Your task to perform on an android device: Search for "usb-b" on ebay.com, select the first entry, and add it to the cart. Image 0: 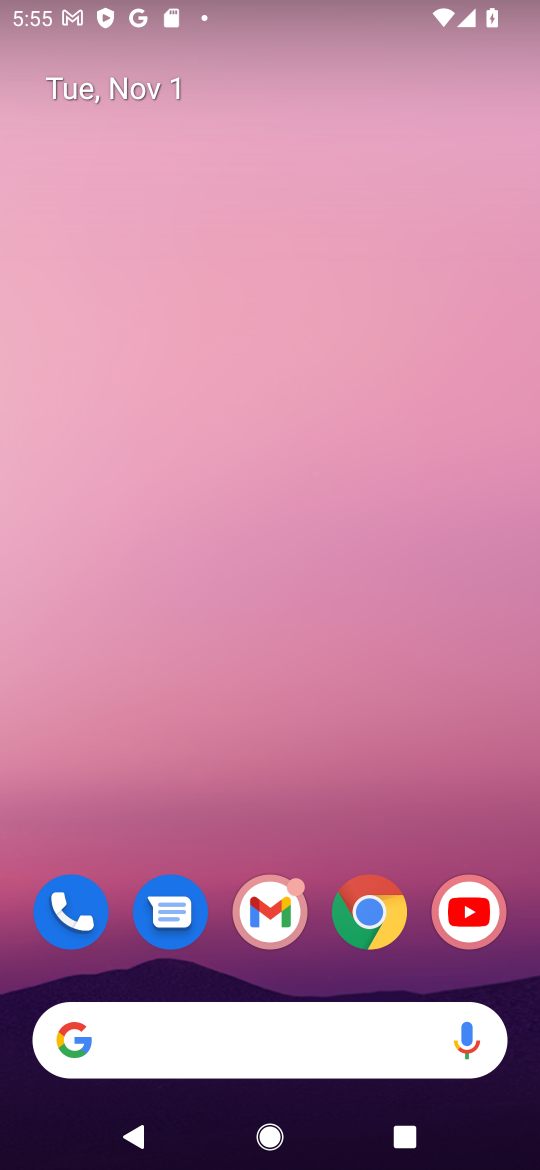
Step 0: click (372, 926)
Your task to perform on an android device: Search for "usb-b" on ebay.com, select the first entry, and add it to the cart. Image 1: 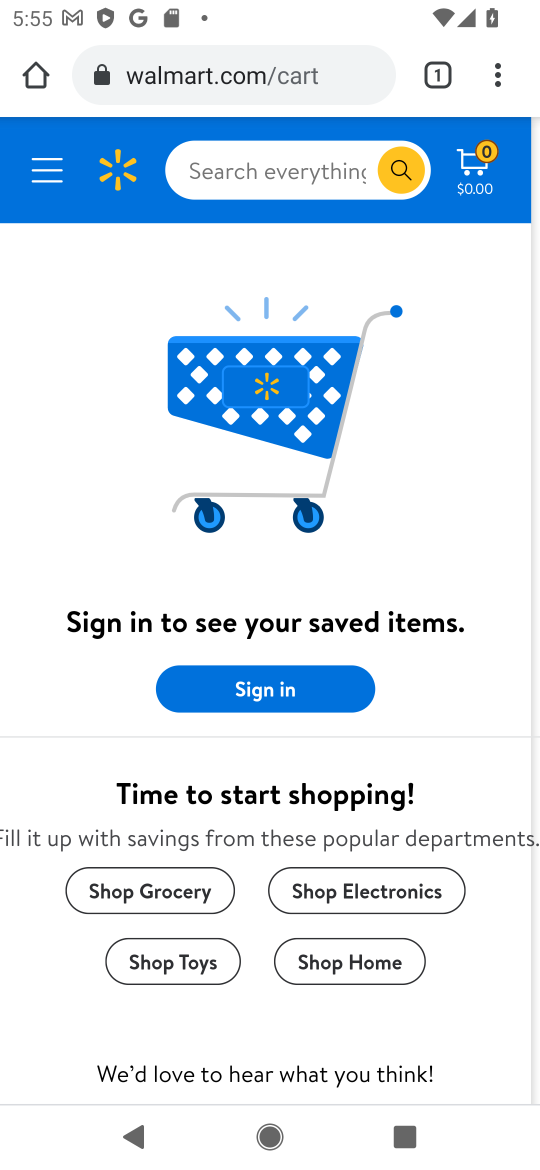
Step 1: click (263, 79)
Your task to perform on an android device: Search for "usb-b" on ebay.com, select the first entry, and add it to the cart. Image 2: 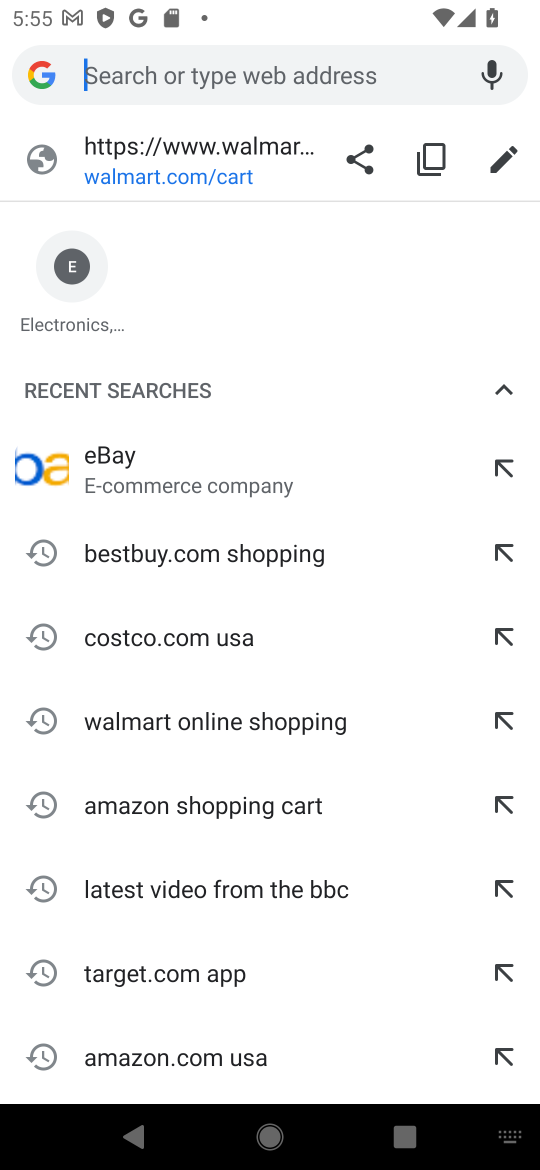
Step 2: click (277, 466)
Your task to perform on an android device: Search for "usb-b" on ebay.com, select the first entry, and add it to the cart. Image 3: 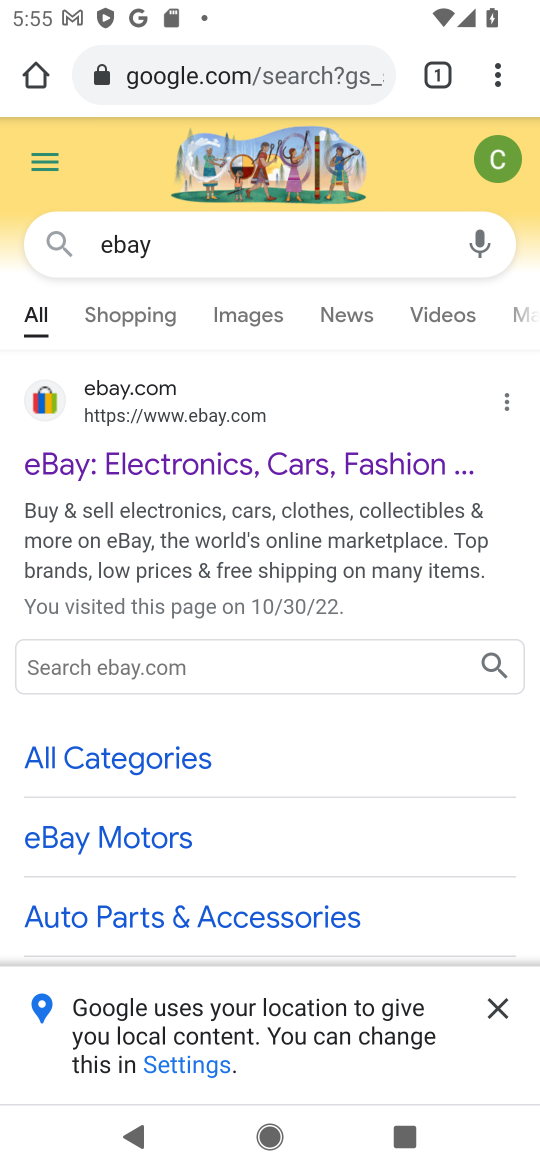
Step 3: click (324, 468)
Your task to perform on an android device: Search for "usb-b" on ebay.com, select the first entry, and add it to the cart. Image 4: 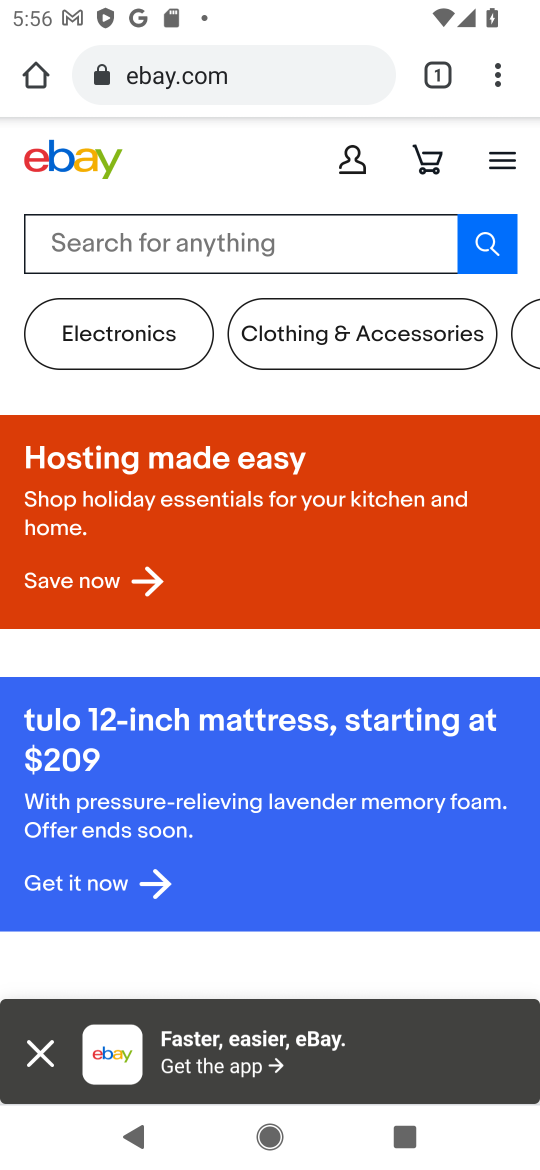
Step 4: click (213, 244)
Your task to perform on an android device: Search for "usb-b" on ebay.com, select the first entry, and add it to the cart. Image 5: 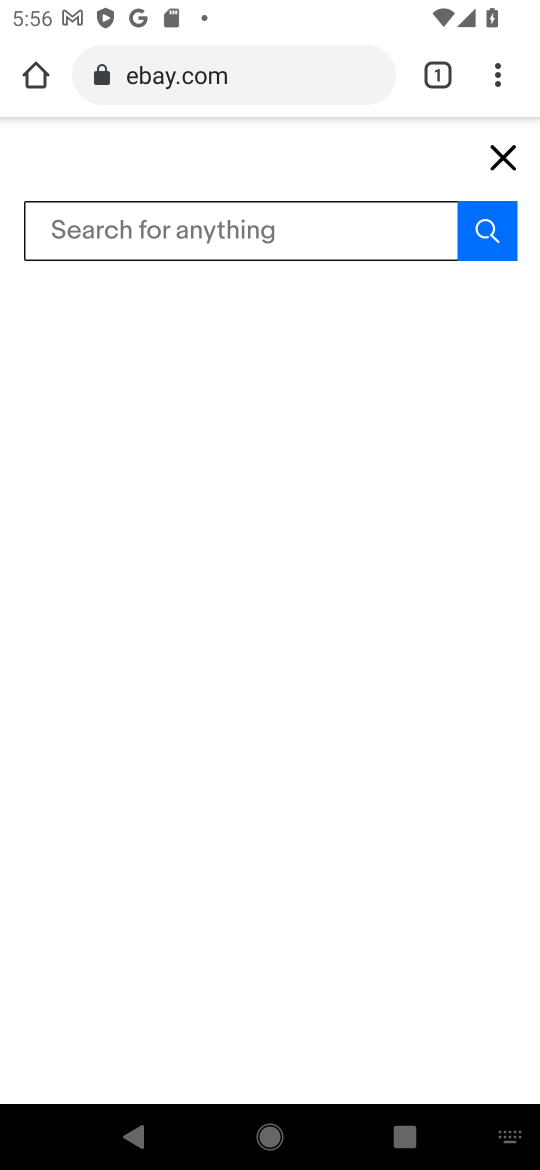
Step 5: type "usb-b"
Your task to perform on an android device: Search for "usb-b" on ebay.com, select the first entry, and add it to the cart. Image 6: 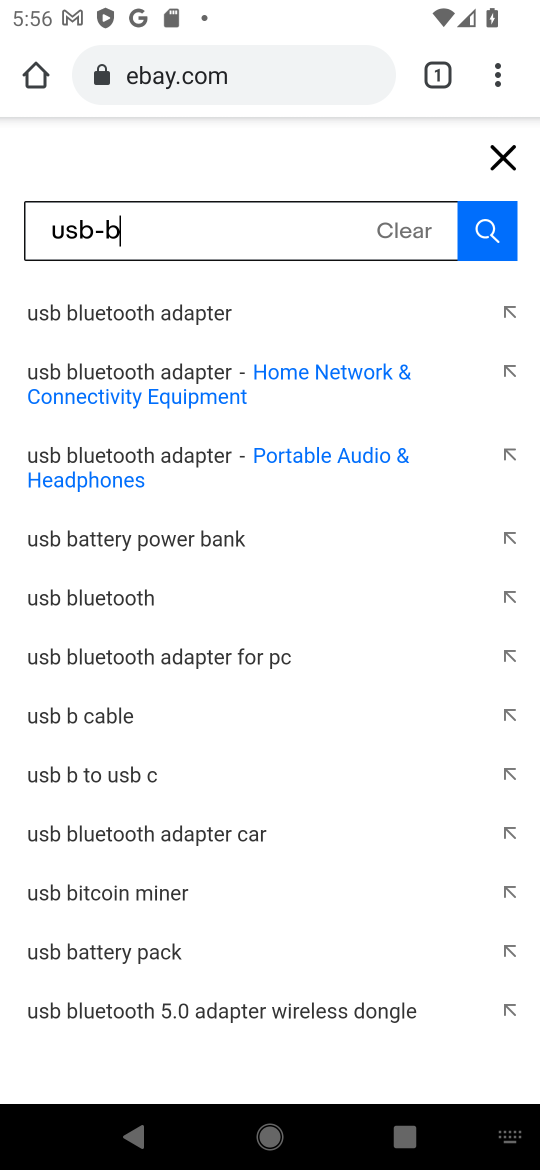
Step 6: click (223, 321)
Your task to perform on an android device: Search for "usb-b" on ebay.com, select the first entry, and add it to the cart. Image 7: 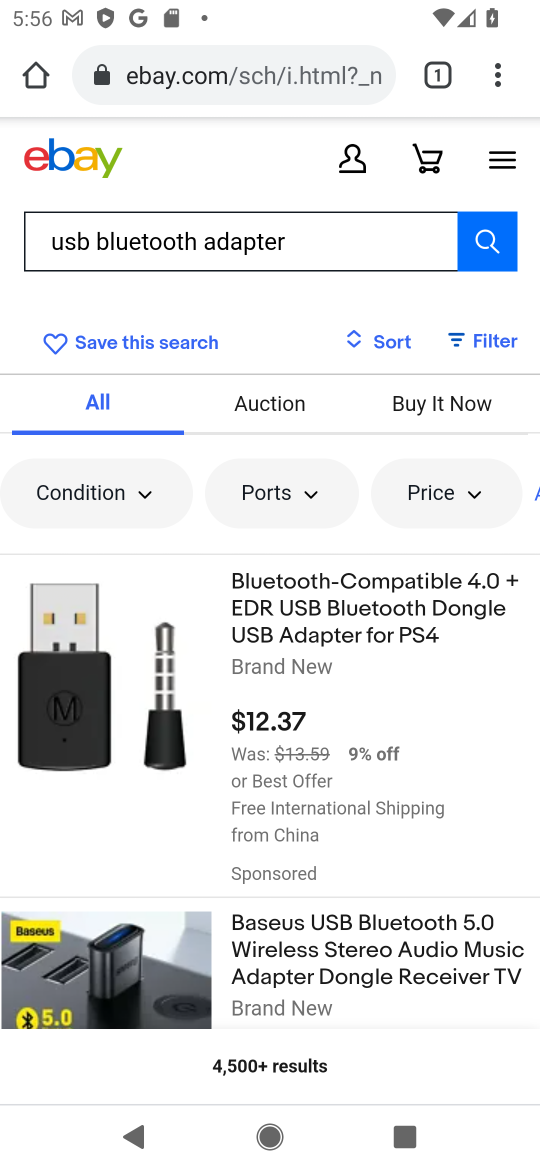
Step 7: click (278, 616)
Your task to perform on an android device: Search for "usb-b" on ebay.com, select the first entry, and add it to the cart. Image 8: 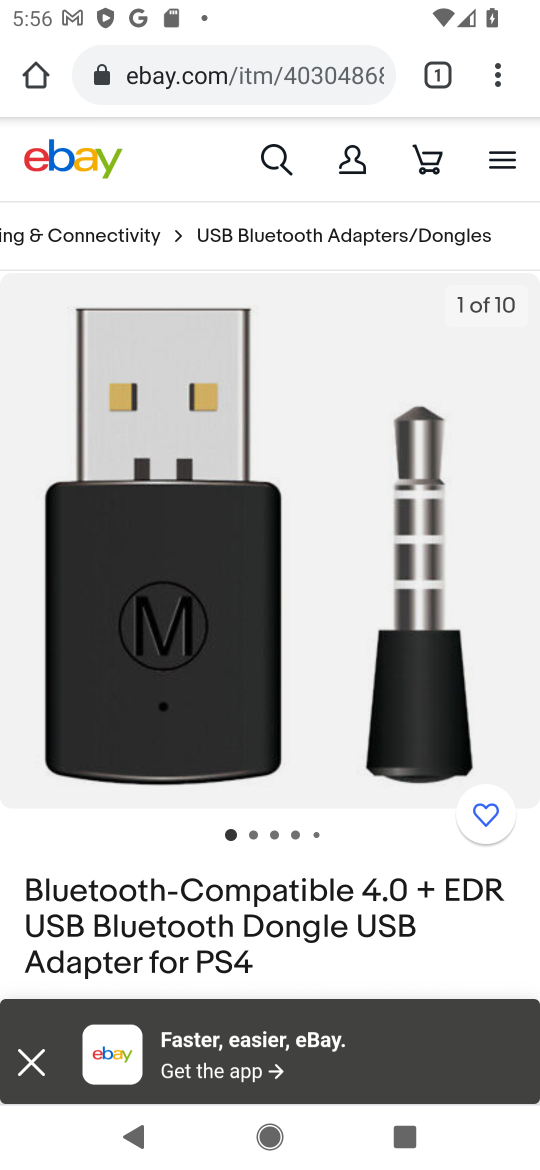
Step 8: drag from (310, 927) to (367, 558)
Your task to perform on an android device: Search for "usb-b" on ebay.com, select the first entry, and add it to the cart. Image 9: 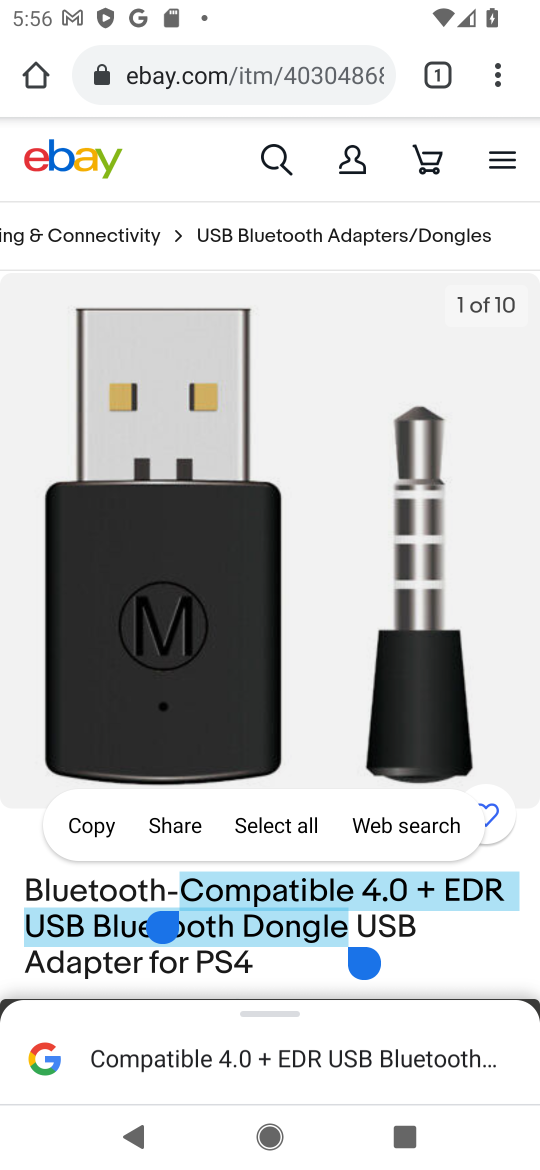
Step 9: click (429, 962)
Your task to perform on an android device: Search for "usb-b" on ebay.com, select the first entry, and add it to the cart. Image 10: 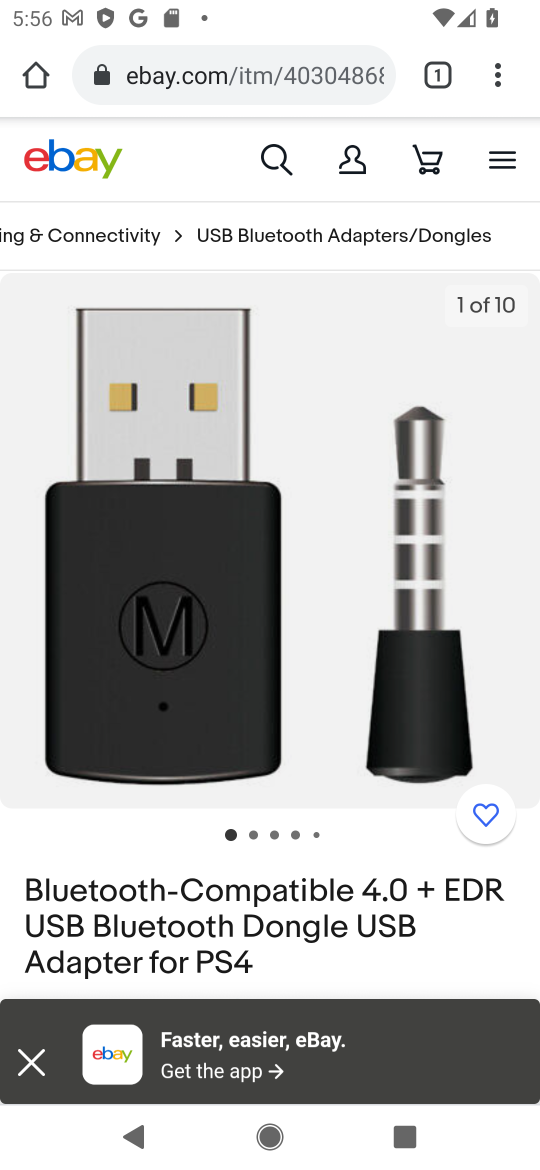
Step 10: drag from (429, 962) to (404, 567)
Your task to perform on an android device: Search for "usb-b" on ebay.com, select the first entry, and add it to the cart. Image 11: 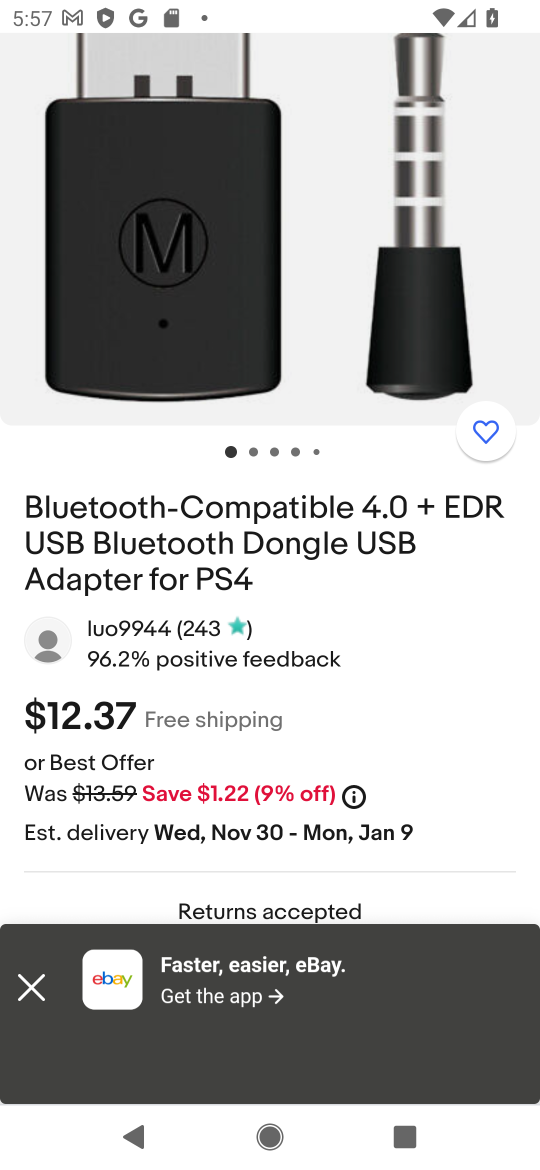
Step 11: drag from (433, 824) to (361, 389)
Your task to perform on an android device: Search for "usb-b" on ebay.com, select the first entry, and add it to the cart. Image 12: 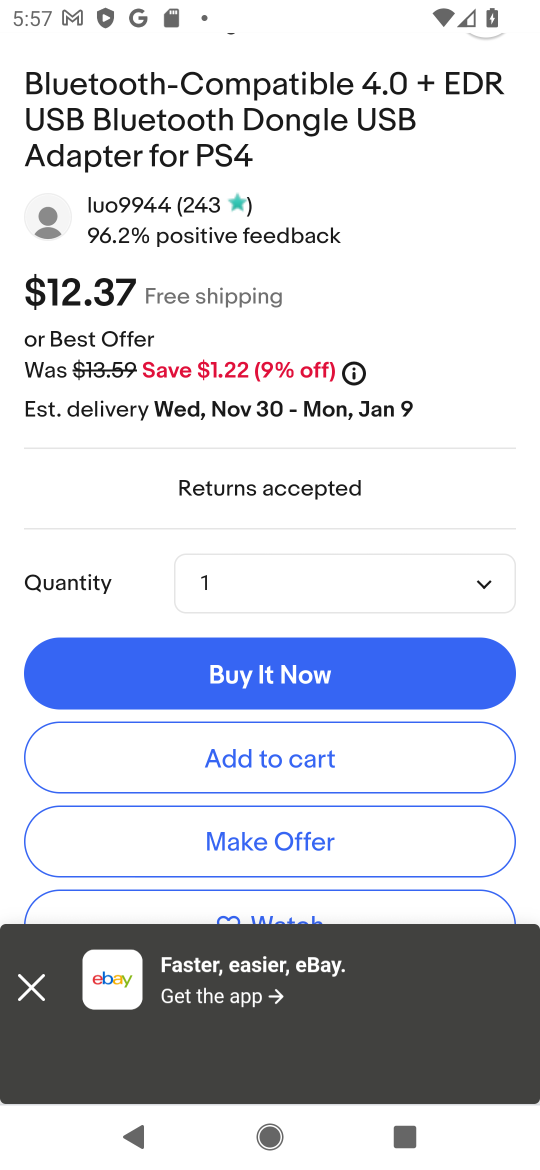
Step 12: click (248, 761)
Your task to perform on an android device: Search for "usb-b" on ebay.com, select the first entry, and add it to the cart. Image 13: 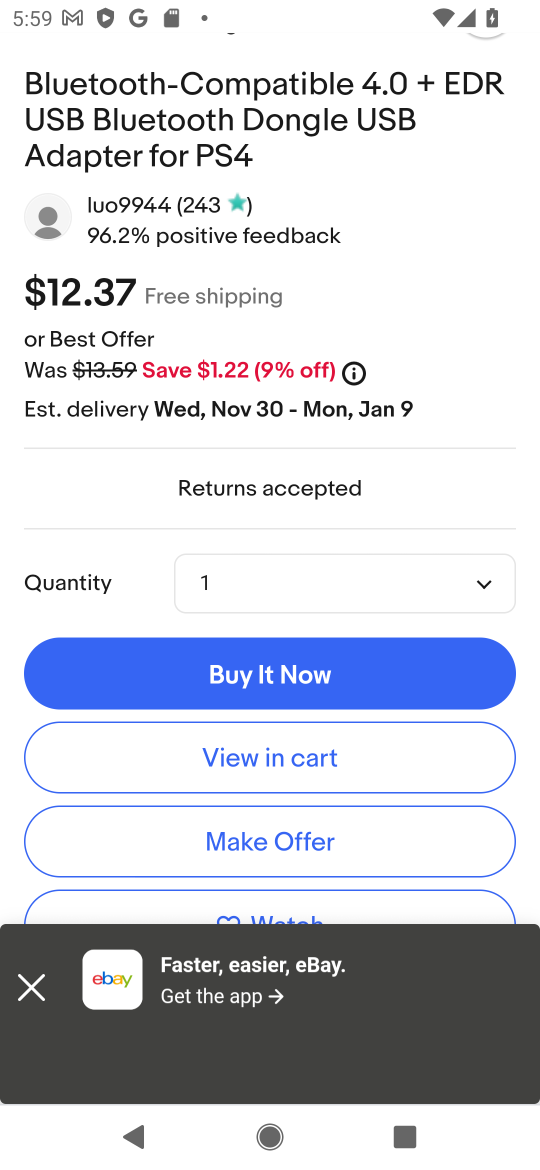
Step 13: task complete